Your task to perform on an android device: Open Google Image 0: 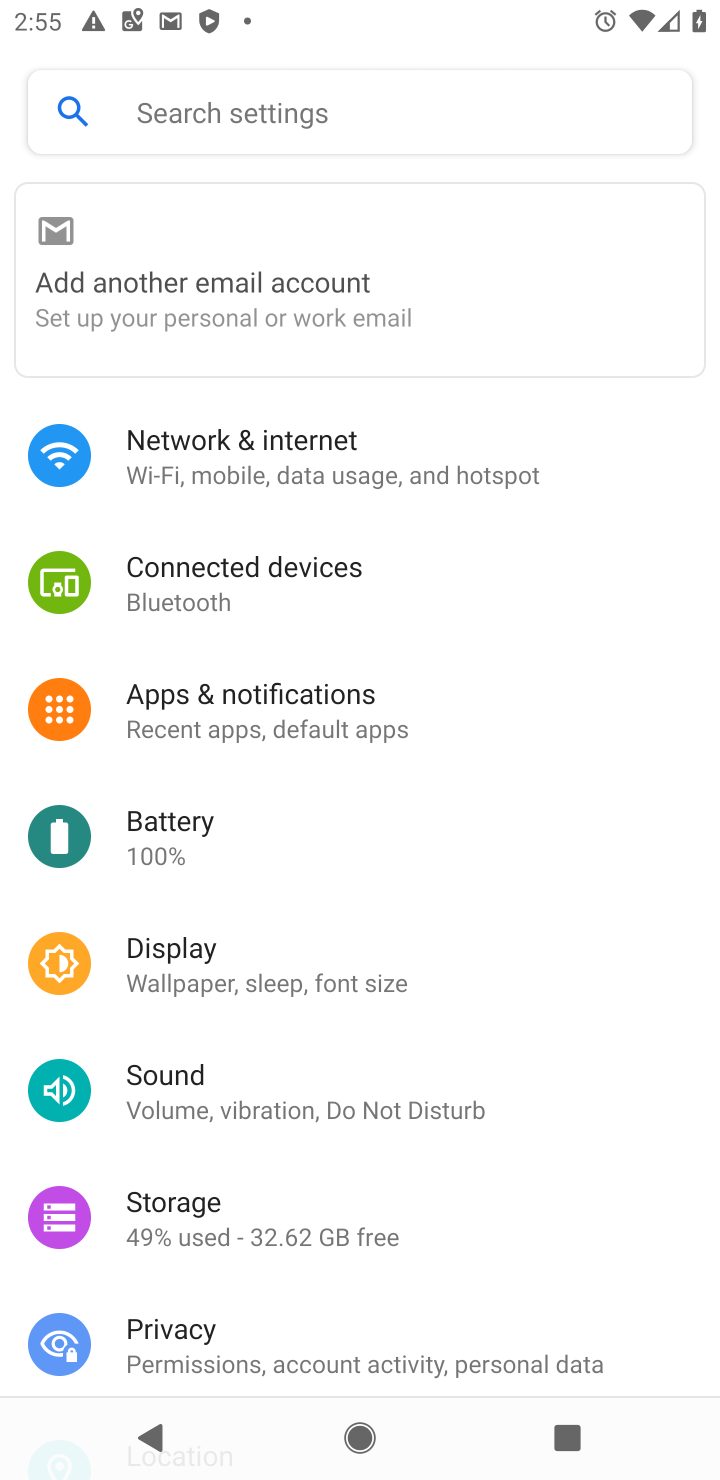
Step 0: press home button
Your task to perform on an android device: Open Google Image 1: 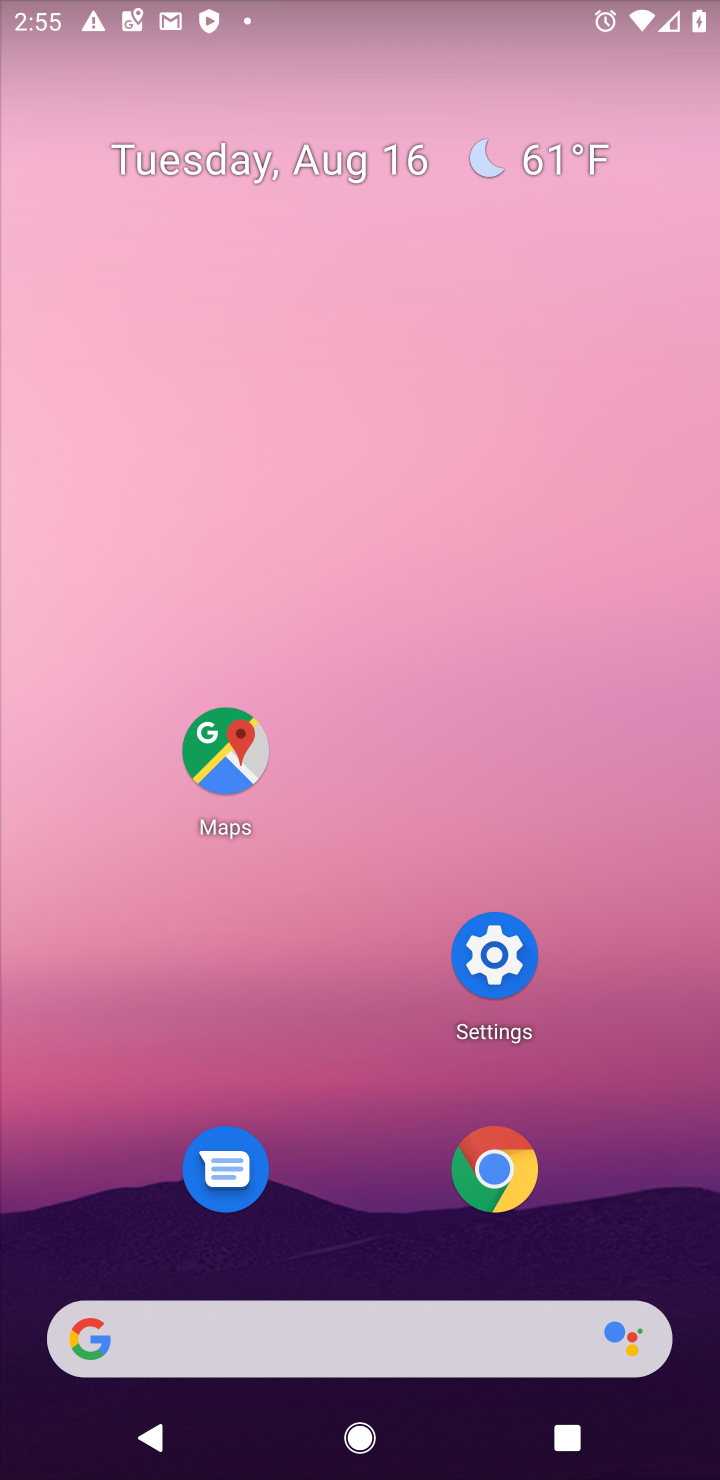
Step 1: drag from (428, 1138) to (570, 173)
Your task to perform on an android device: Open Google Image 2: 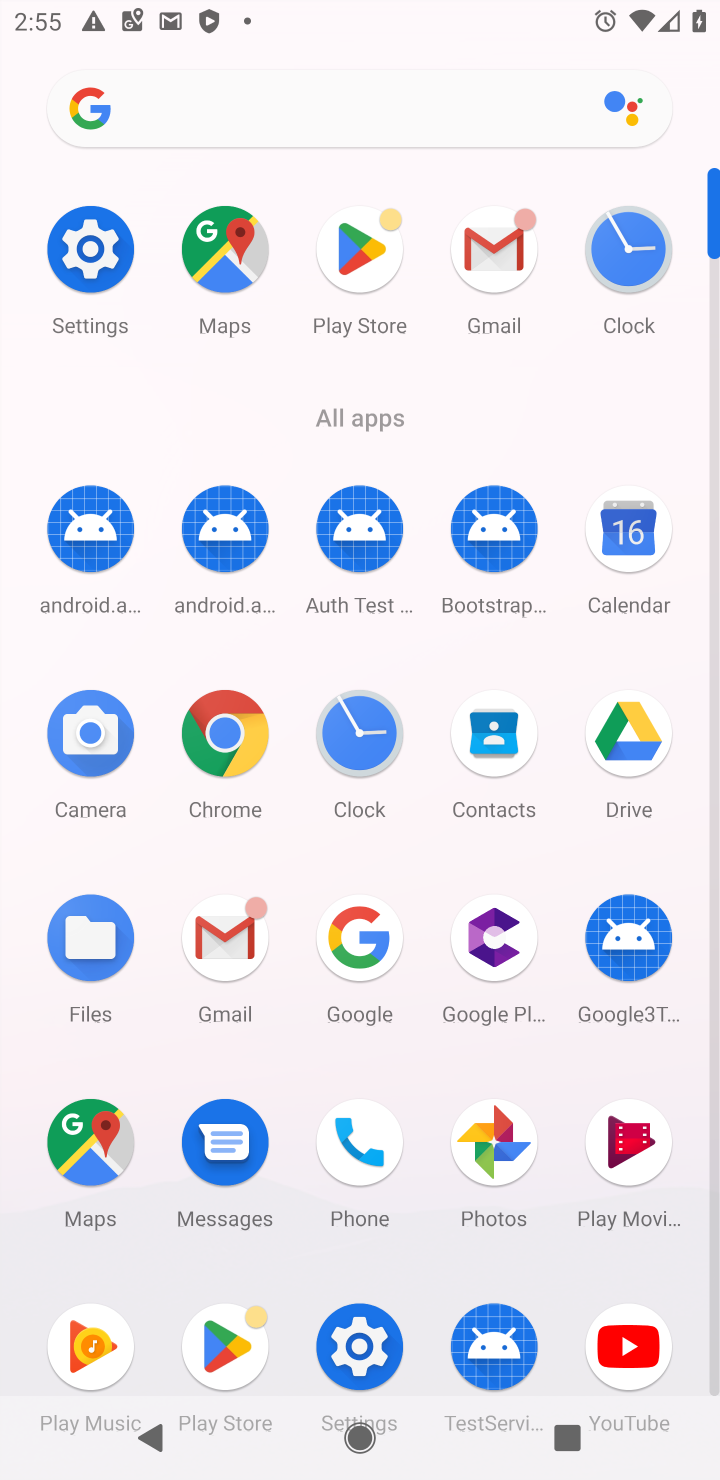
Step 2: click (359, 942)
Your task to perform on an android device: Open Google Image 3: 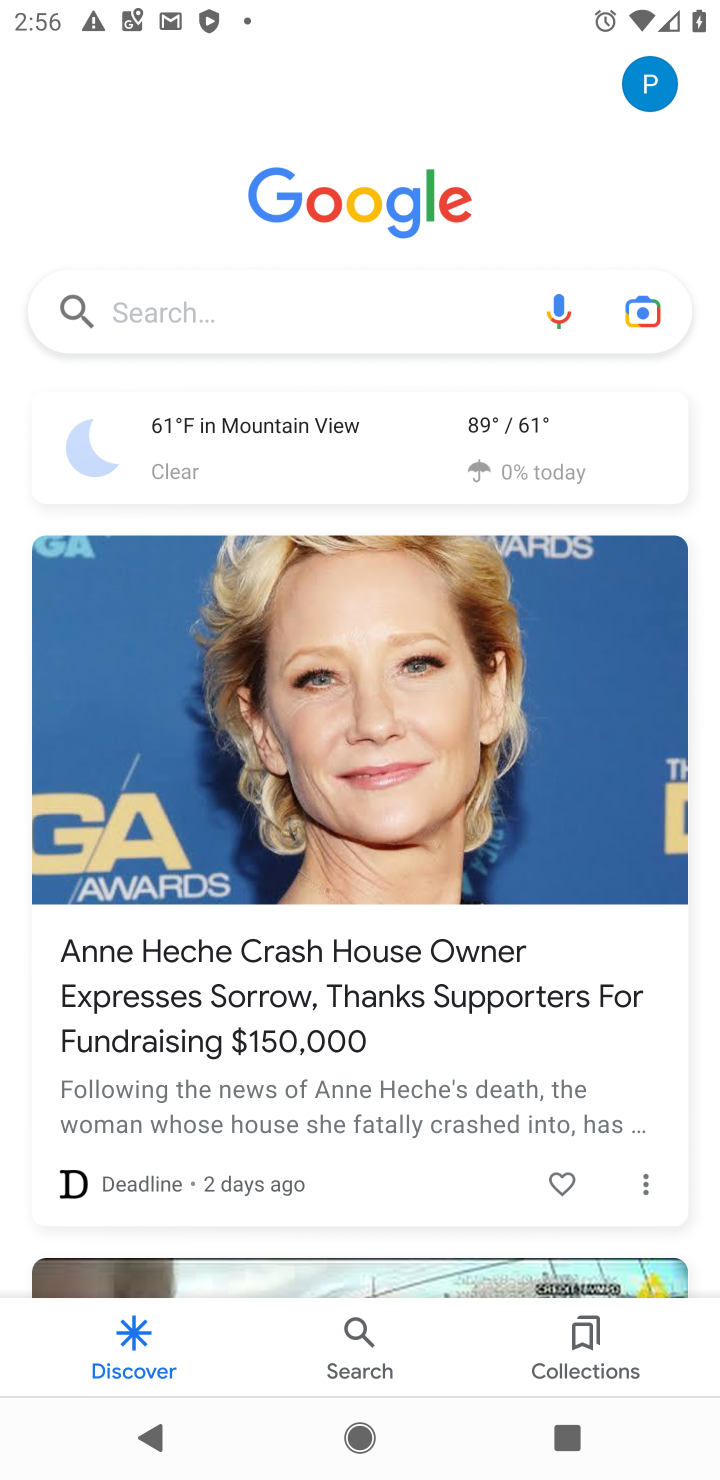
Step 3: task complete